Your task to perform on an android device: turn off improve location accuracy Image 0: 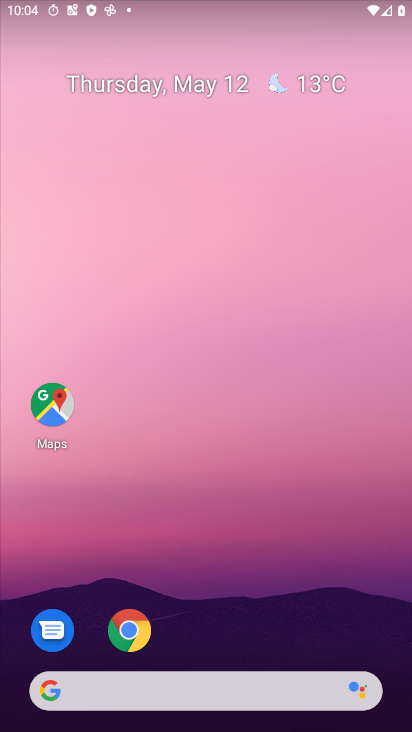
Step 0: drag from (188, 686) to (174, 311)
Your task to perform on an android device: turn off improve location accuracy Image 1: 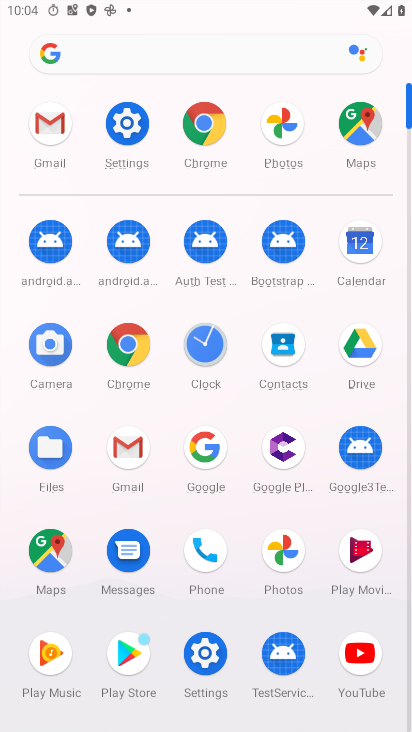
Step 1: click (208, 645)
Your task to perform on an android device: turn off improve location accuracy Image 2: 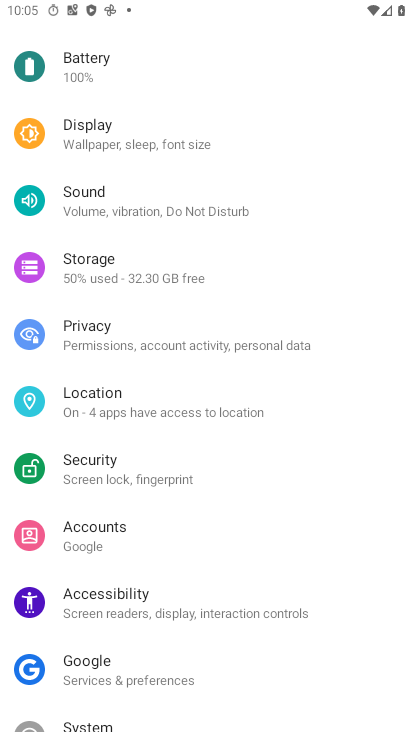
Step 2: click (109, 402)
Your task to perform on an android device: turn off improve location accuracy Image 3: 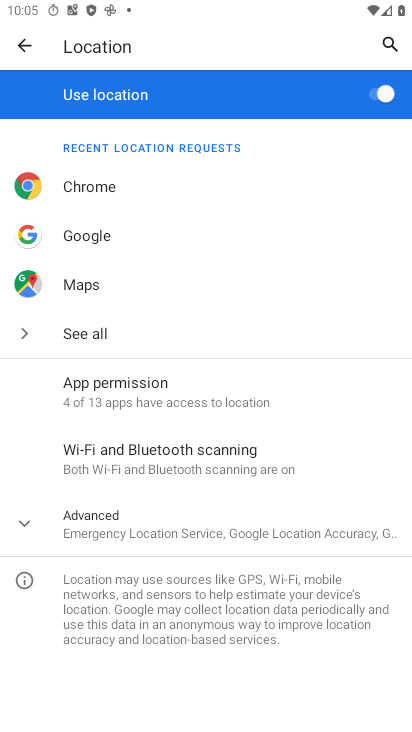
Step 3: click (70, 511)
Your task to perform on an android device: turn off improve location accuracy Image 4: 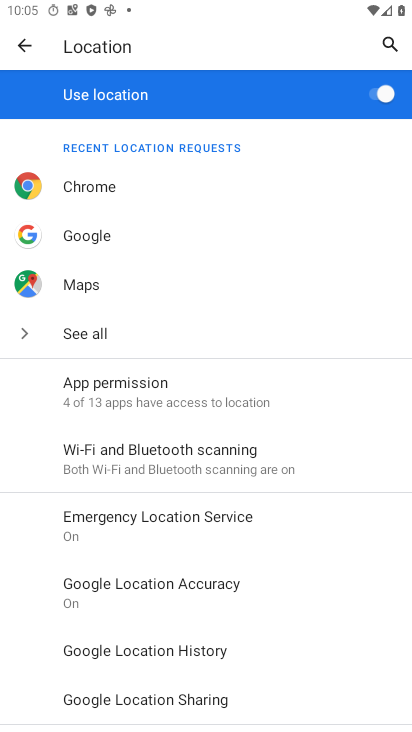
Step 4: click (165, 606)
Your task to perform on an android device: turn off improve location accuracy Image 5: 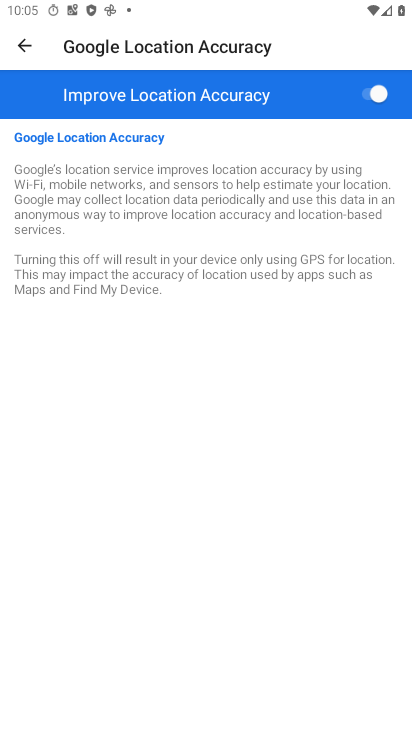
Step 5: click (375, 90)
Your task to perform on an android device: turn off improve location accuracy Image 6: 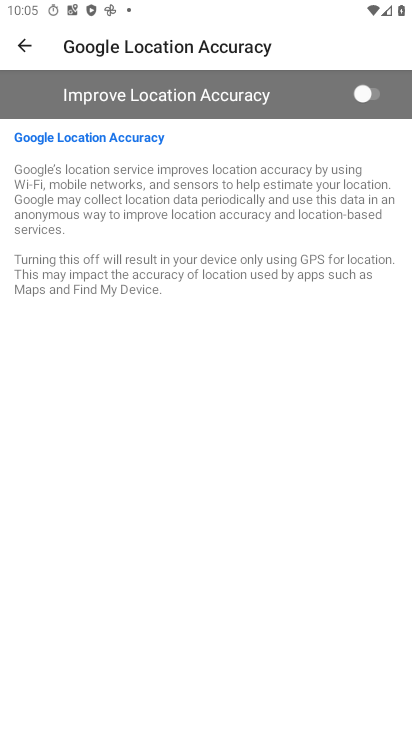
Step 6: task complete